Your task to perform on an android device: install app "Indeed Job Search" Image 0: 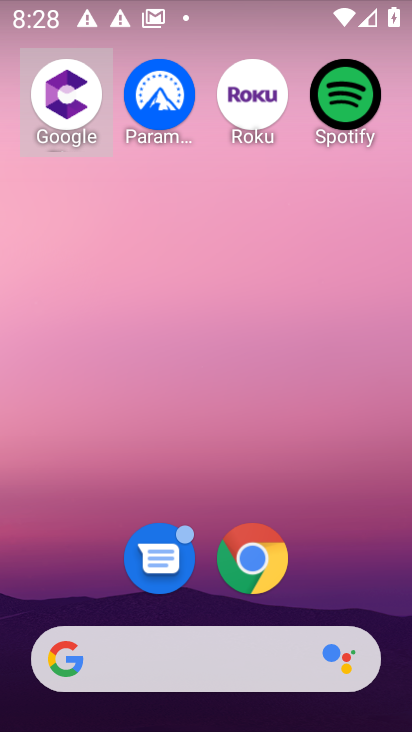
Step 0: drag from (223, 654) to (408, 273)
Your task to perform on an android device: install app "Indeed Job Search" Image 1: 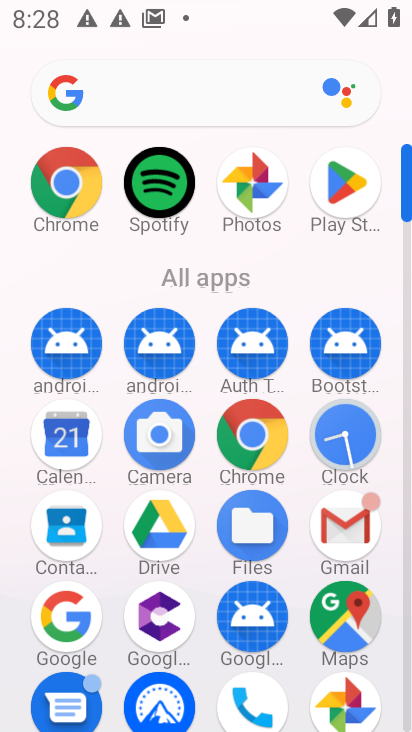
Step 1: click (348, 195)
Your task to perform on an android device: install app "Indeed Job Search" Image 2: 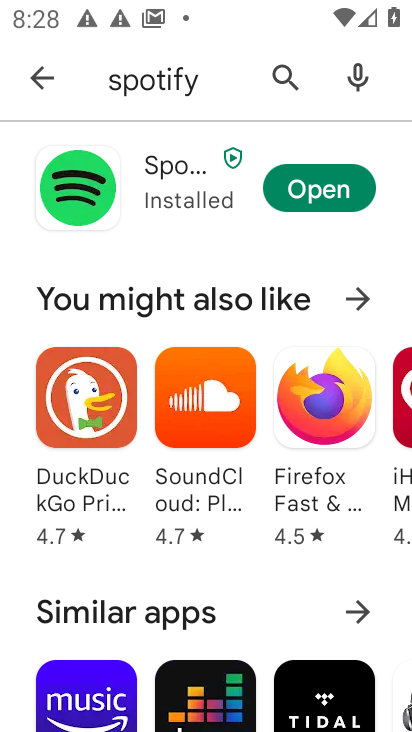
Step 2: click (286, 73)
Your task to perform on an android device: install app "Indeed Job Search" Image 3: 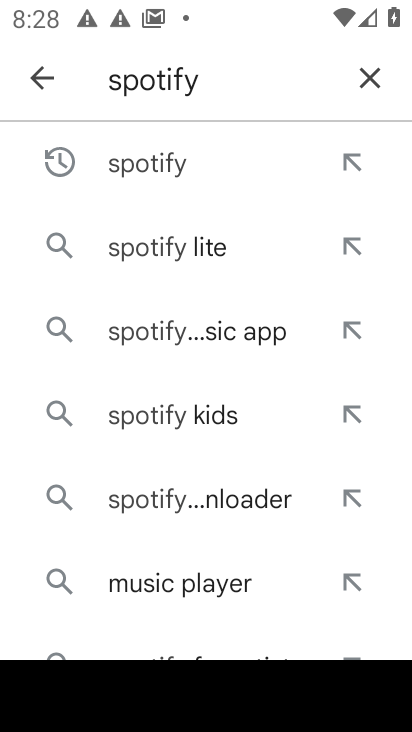
Step 3: click (359, 81)
Your task to perform on an android device: install app "Indeed Job Search" Image 4: 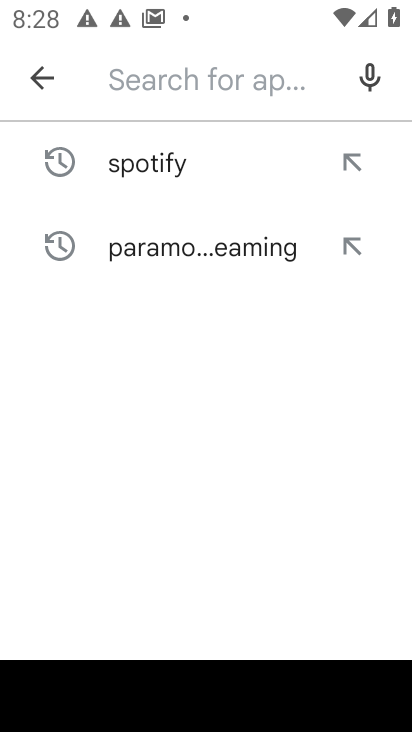
Step 4: type "indeed job search"
Your task to perform on an android device: install app "Indeed Job Search" Image 5: 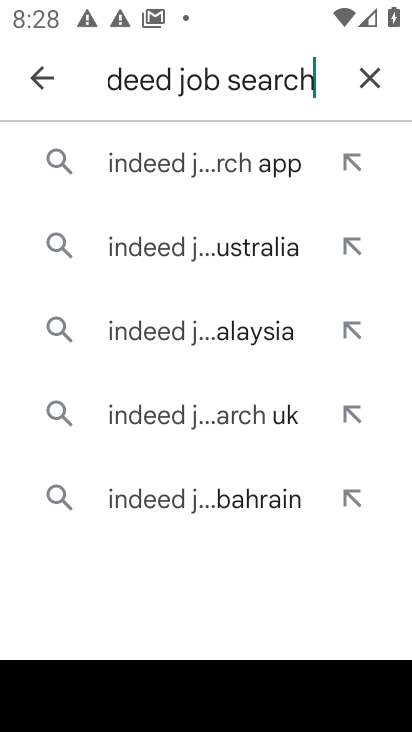
Step 5: press enter
Your task to perform on an android device: install app "Indeed Job Search" Image 6: 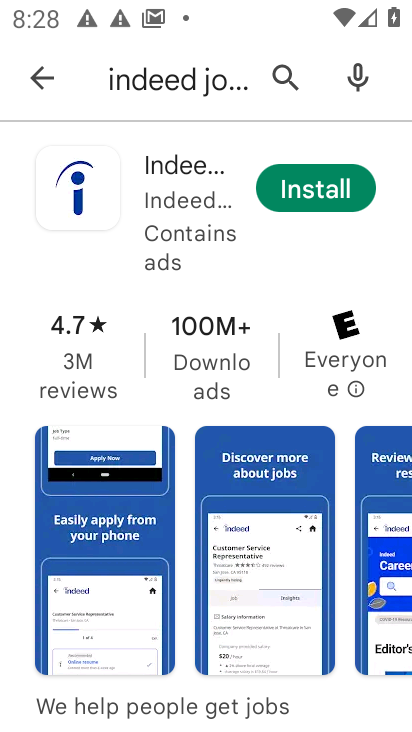
Step 6: click (319, 193)
Your task to perform on an android device: install app "Indeed Job Search" Image 7: 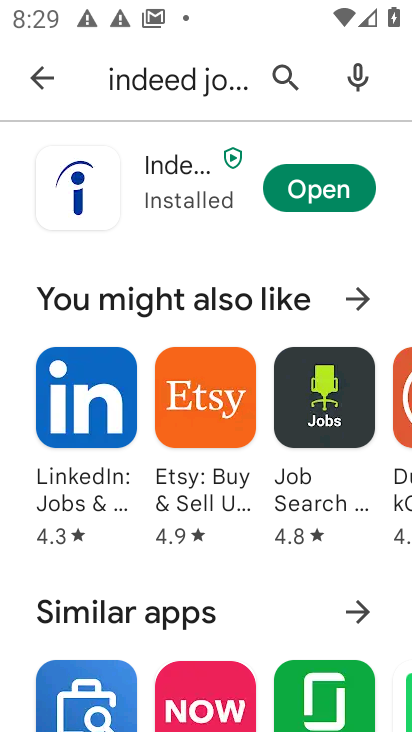
Step 7: task complete